Your task to perform on an android device: Open Google Maps Image 0: 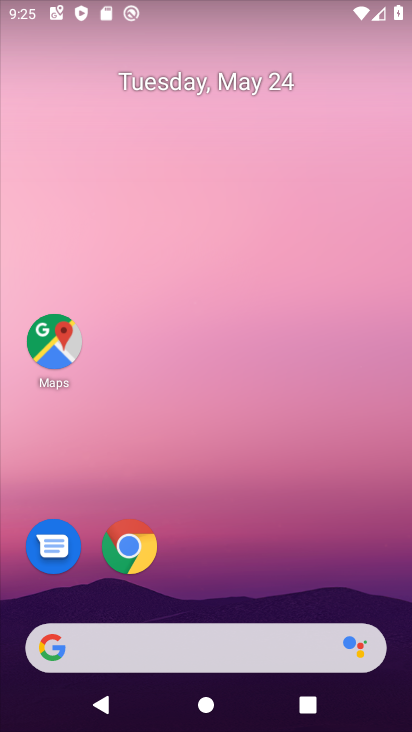
Step 0: click (36, 345)
Your task to perform on an android device: Open Google Maps Image 1: 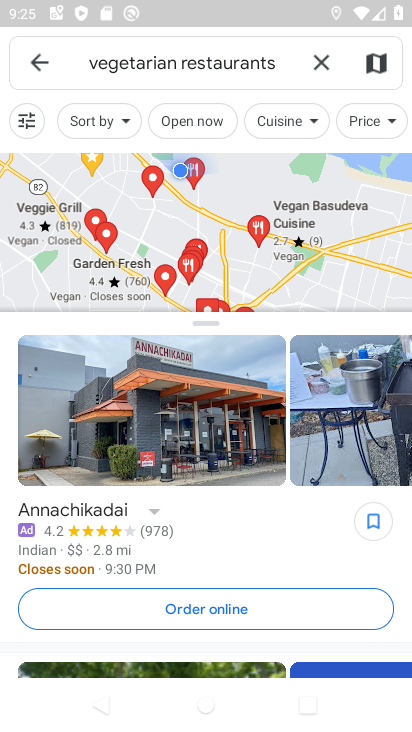
Step 1: click (321, 60)
Your task to perform on an android device: Open Google Maps Image 2: 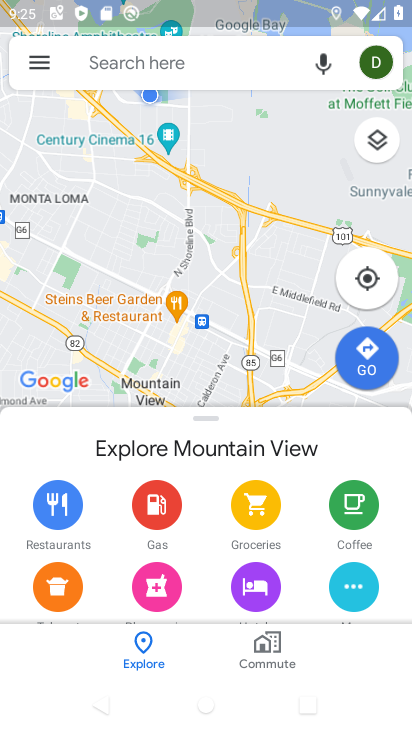
Step 2: task complete